Your task to perform on an android device: turn on data saver in the chrome app Image 0: 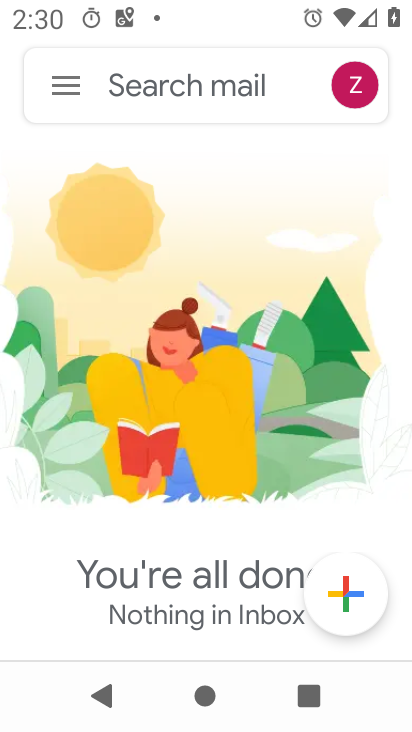
Step 0: press home button
Your task to perform on an android device: turn on data saver in the chrome app Image 1: 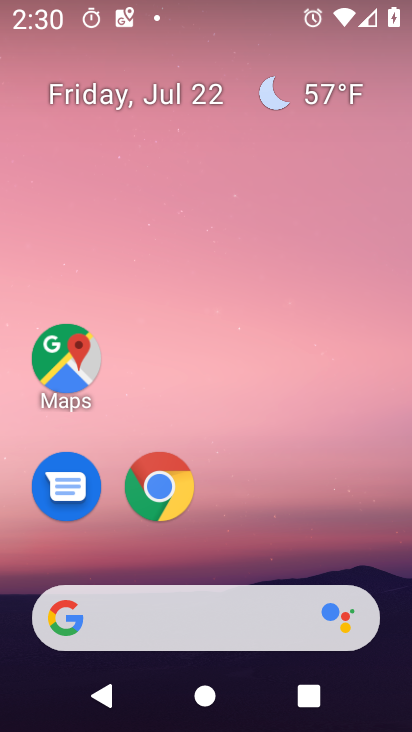
Step 1: drag from (352, 558) to (354, 129)
Your task to perform on an android device: turn on data saver in the chrome app Image 2: 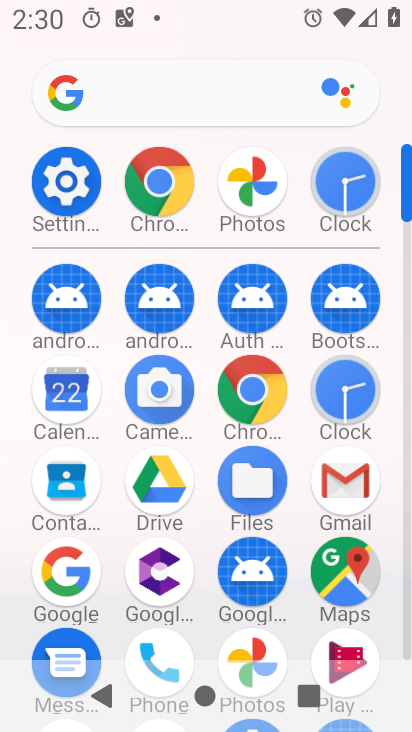
Step 2: click (264, 389)
Your task to perform on an android device: turn on data saver in the chrome app Image 3: 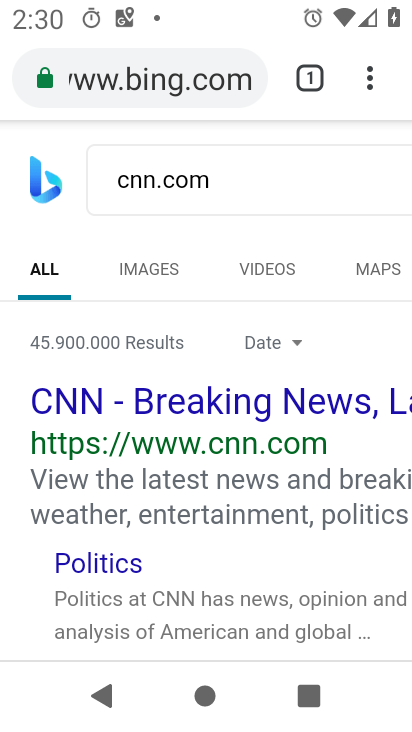
Step 3: click (370, 84)
Your task to perform on an android device: turn on data saver in the chrome app Image 4: 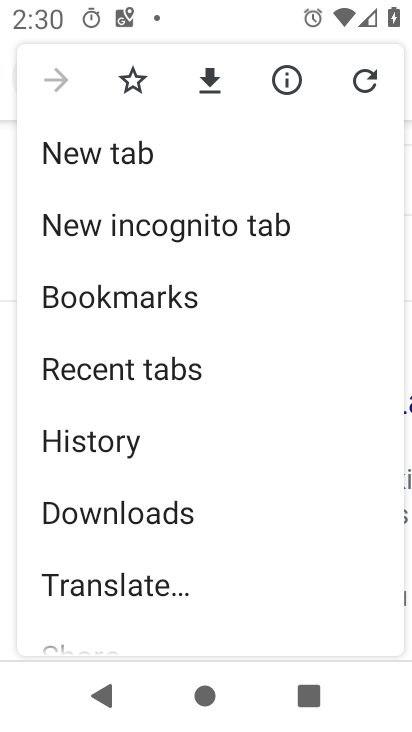
Step 4: drag from (335, 420) to (347, 341)
Your task to perform on an android device: turn on data saver in the chrome app Image 5: 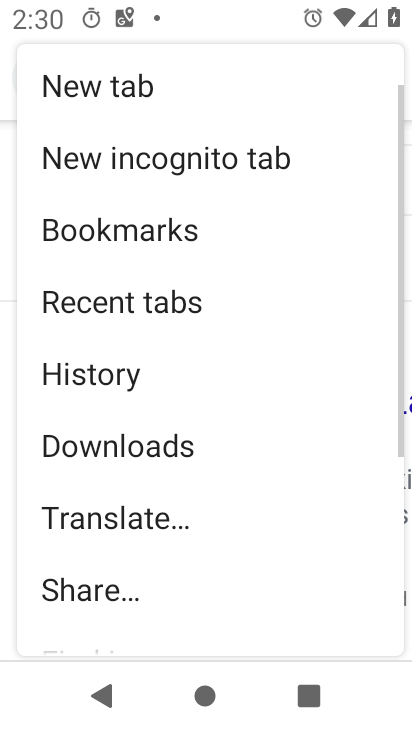
Step 5: drag from (337, 448) to (338, 372)
Your task to perform on an android device: turn on data saver in the chrome app Image 6: 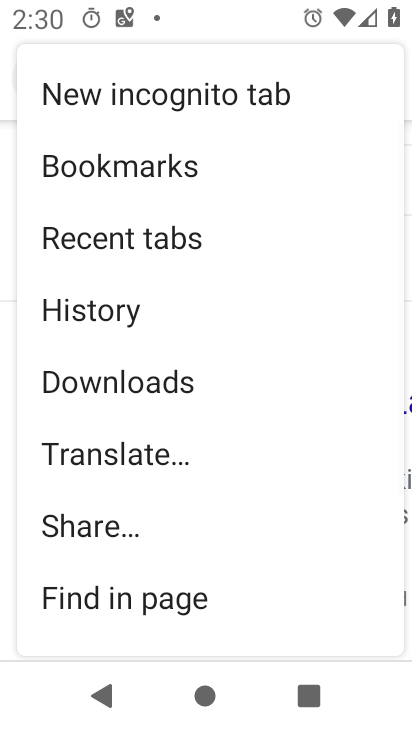
Step 6: drag from (290, 483) to (298, 398)
Your task to perform on an android device: turn on data saver in the chrome app Image 7: 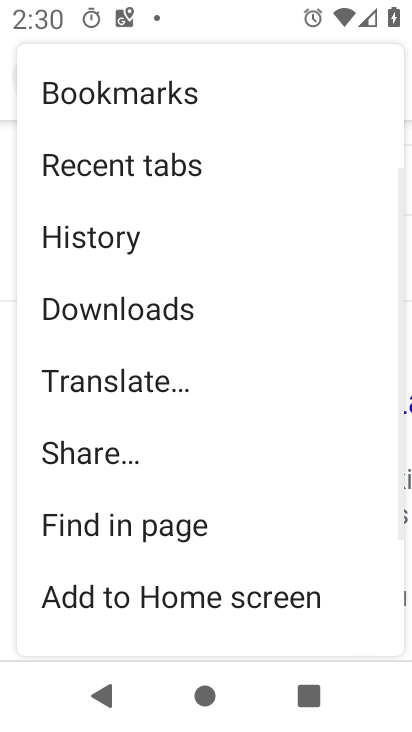
Step 7: drag from (305, 510) to (312, 391)
Your task to perform on an android device: turn on data saver in the chrome app Image 8: 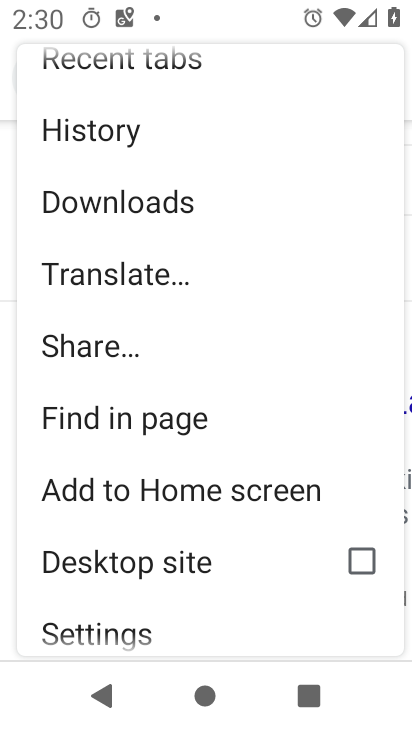
Step 8: drag from (262, 532) to (270, 403)
Your task to perform on an android device: turn on data saver in the chrome app Image 9: 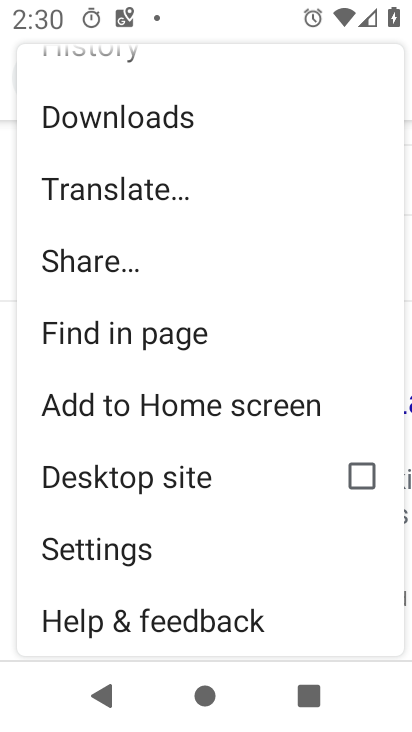
Step 9: click (181, 542)
Your task to perform on an android device: turn on data saver in the chrome app Image 10: 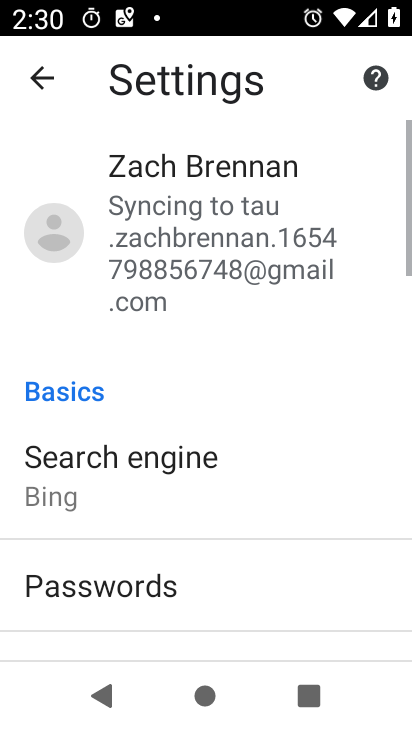
Step 10: drag from (287, 544) to (307, 462)
Your task to perform on an android device: turn on data saver in the chrome app Image 11: 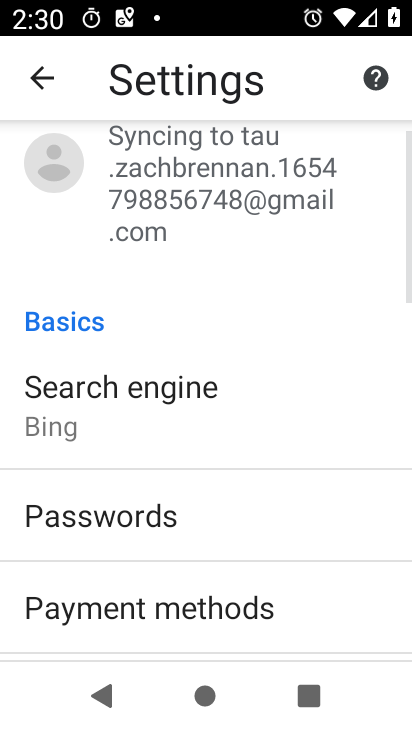
Step 11: drag from (322, 559) to (322, 462)
Your task to perform on an android device: turn on data saver in the chrome app Image 12: 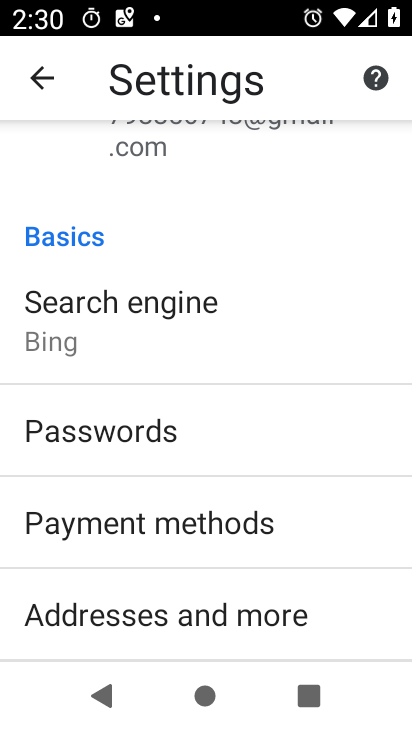
Step 12: drag from (321, 538) to (326, 452)
Your task to perform on an android device: turn on data saver in the chrome app Image 13: 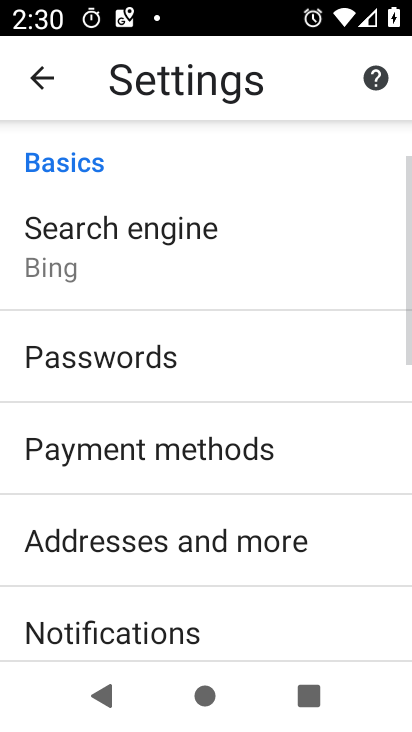
Step 13: drag from (344, 547) to (330, 452)
Your task to perform on an android device: turn on data saver in the chrome app Image 14: 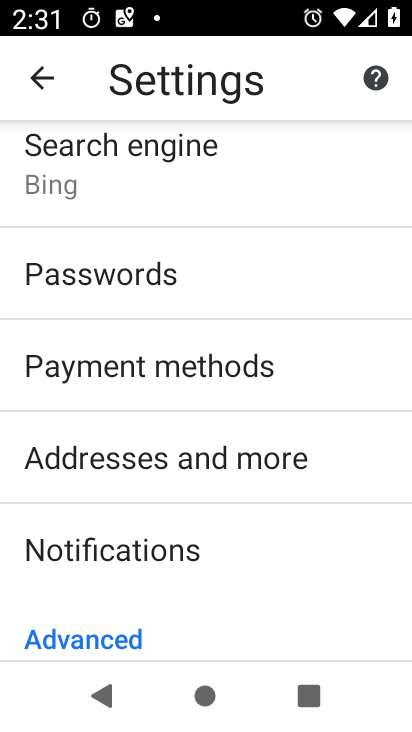
Step 14: drag from (343, 557) to (343, 441)
Your task to perform on an android device: turn on data saver in the chrome app Image 15: 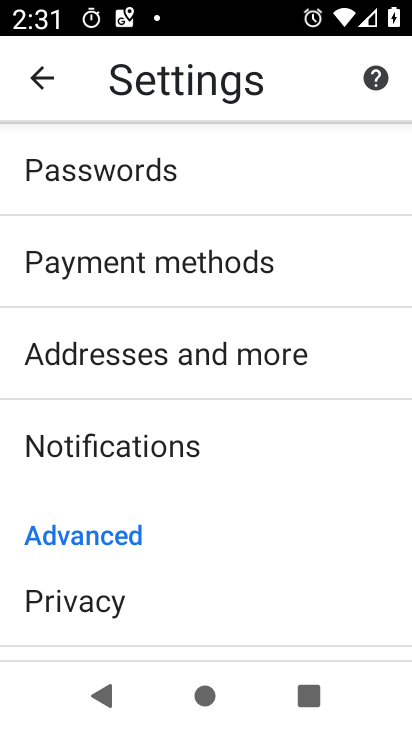
Step 15: drag from (335, 558) to (342, 426)
Your task to perform on an android device: turn on data saver in the chrome app Image 16: 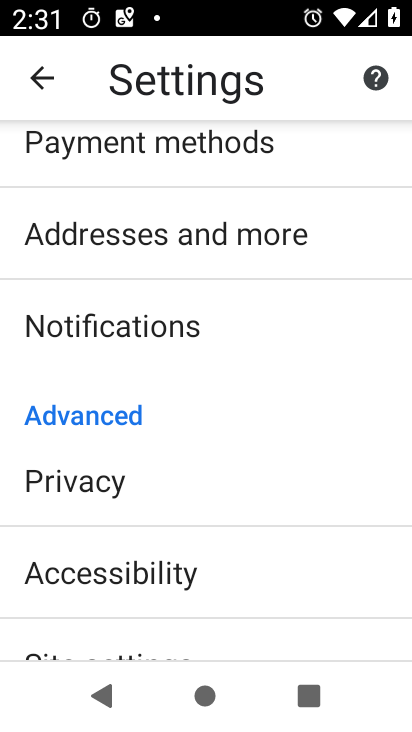
Step 16: drag from (318, 559) to (320, 436)
Your task to perform on an android device: turn on data saver in the chrome app Image 17: 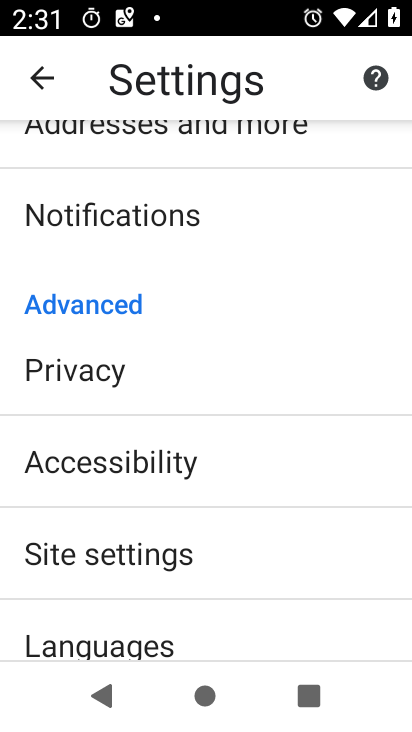
Step 17: drag from (328, 554) to (332, 423)
Your task to perform on an android device: turn on data saver in the chrome app Image 18: 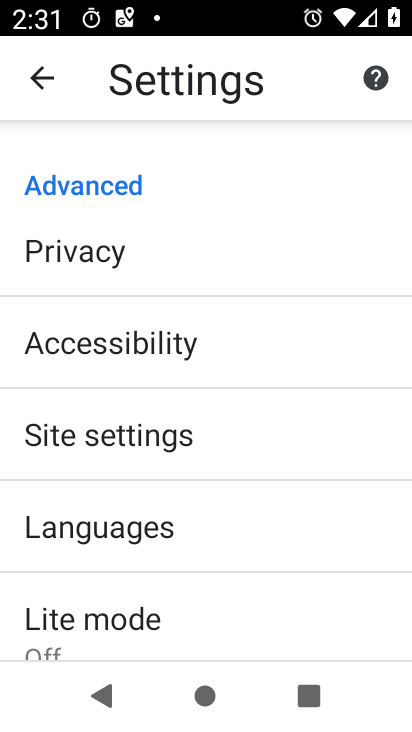
Step 18: drag from (333, 570) to (336, 453)
Your task to perform on an android device: turn on data saver in the chrome app Image 19: 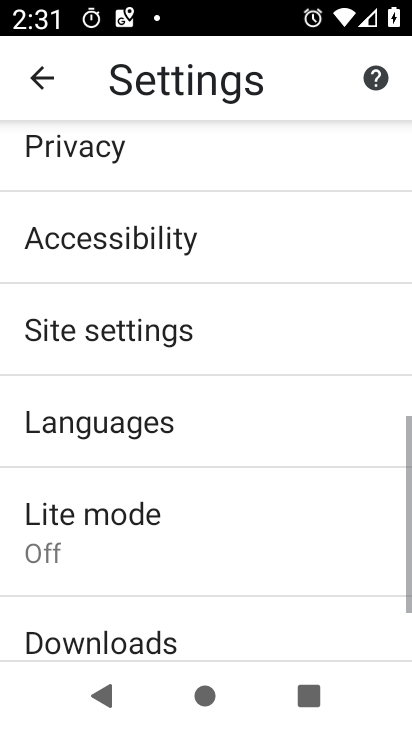
Step 19: click (340, 528)
Your task to perform on an android device: turn on data saver in the chrome app Image 20: 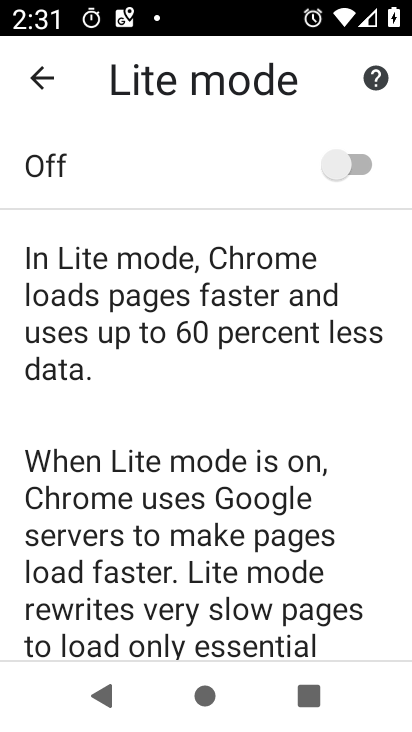
Step 20: click (329, 180)
Your task to perform on an android device: turn on data saver in the chrome app Image 21: 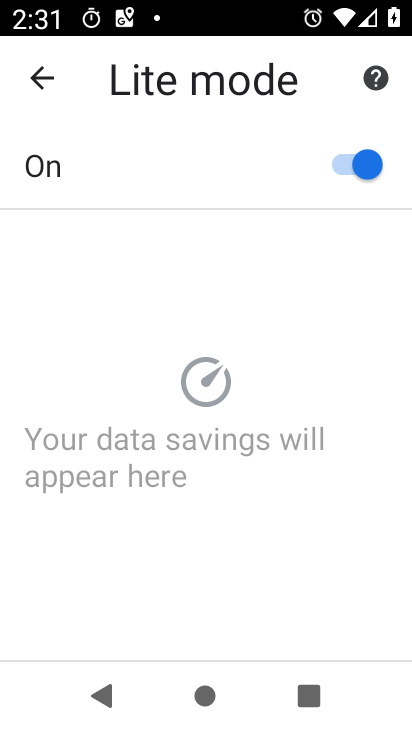
Step 21: task complete